Your task to perform on an android device: turn on data saver in the chrome app Image 0: 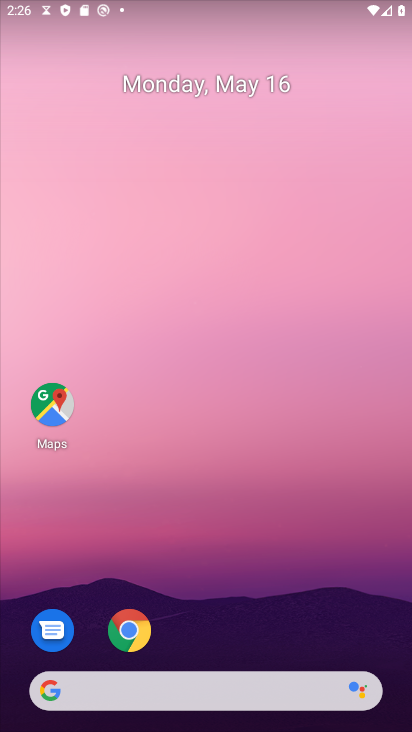
Step 0: click (123, 623)
Your task to perform on an android device: turn on data saver in the chrome app Image 1: 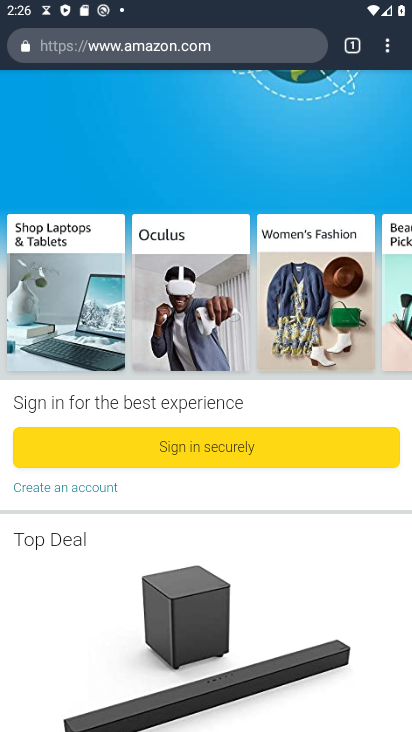
Step 1: click (385, 41)
Your task to perform on an android device: turn on data saver in the chrome app Image 2: 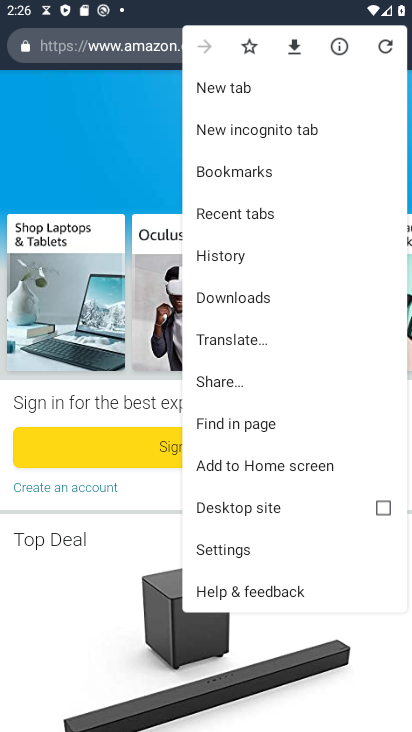
Step 2: click (259, 545)
Your task to perform on an android device: turn on data saver in the chrome app Image 3: 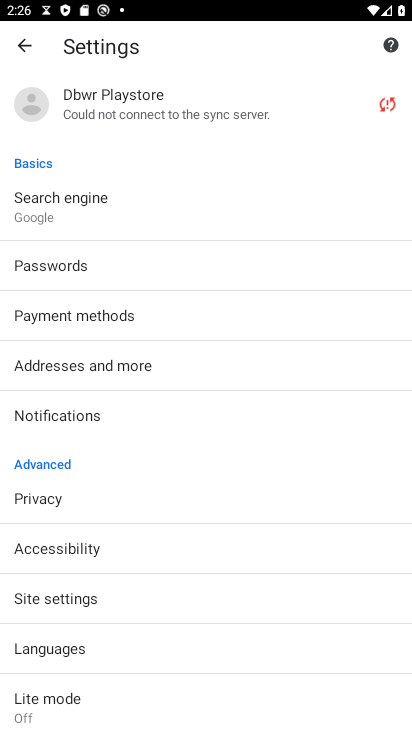
Step 3: click (92, 705)
Your task to perform on an android device: turn on data saver in the chrome app Image 4: 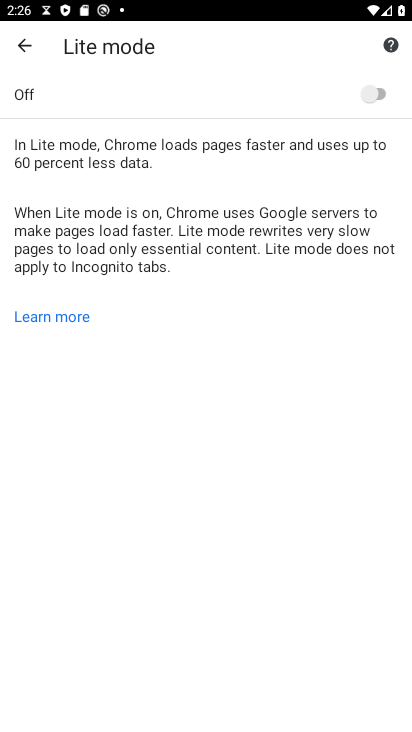
Step 4: click (376, 87)
Your task to perform on an android device: turn on data saver in the chrome app Image 5: 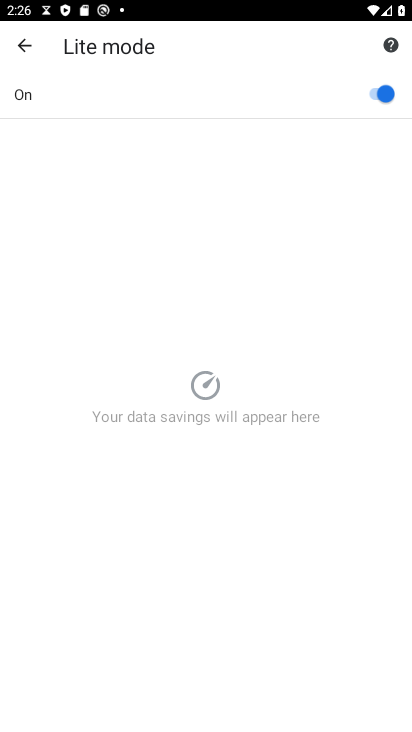
Step 5: task complete